Your task to perform on an android device: snooze an email in the gmail app Image 0: 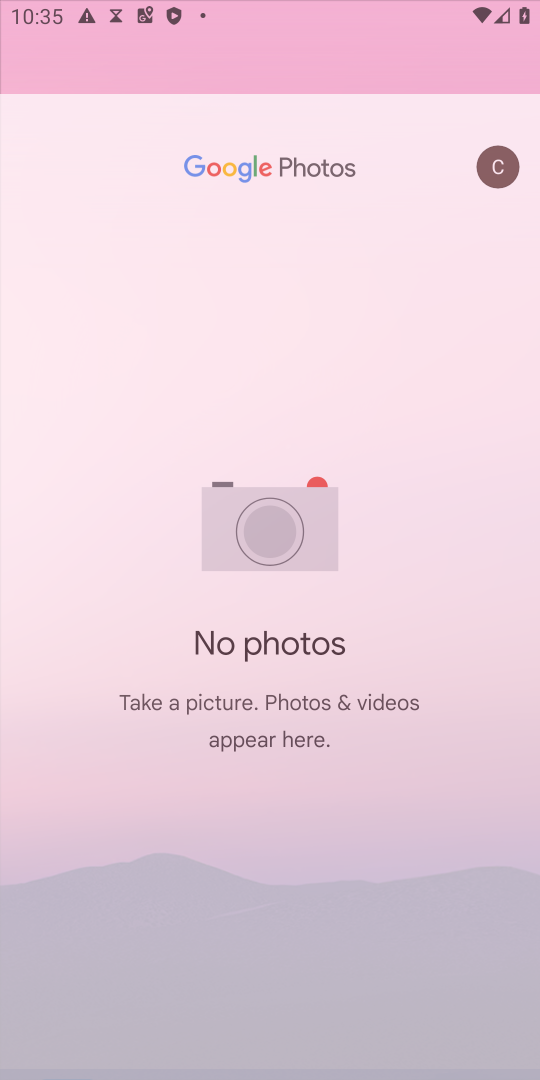
Step 0: press home button
Your task to perform on an android device: snooze an email in the gmail app Image 1: 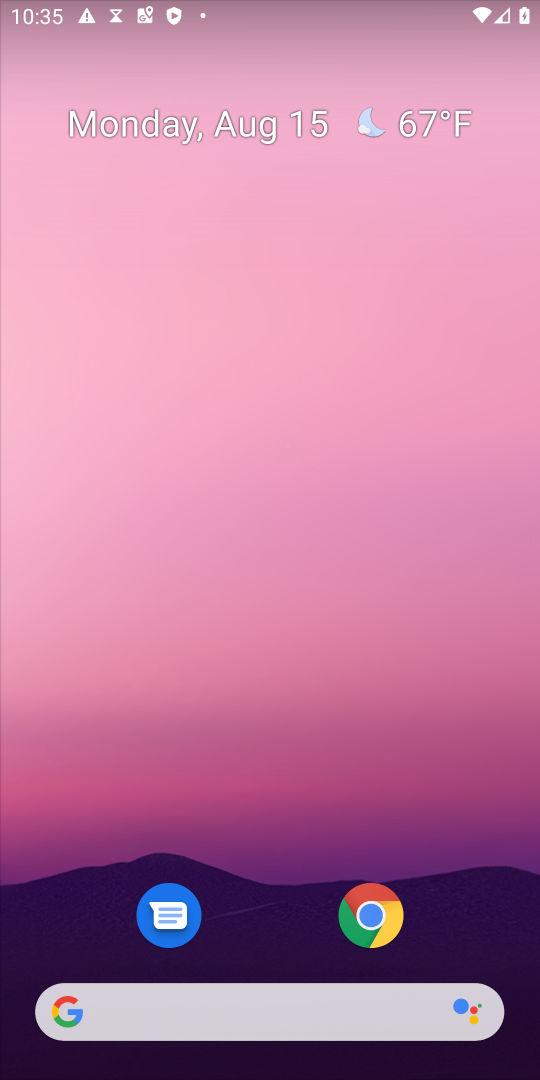
Step 1: drag from (243, 809) to (286, 155)
Your task to perform on an android device: snooze an email in the gmail app Image 2: 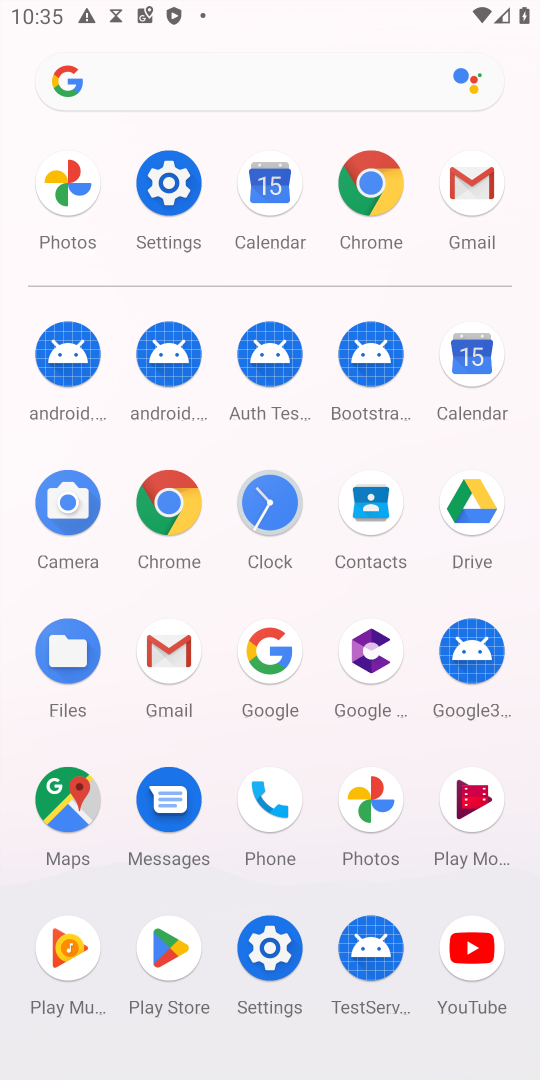
Step 2: click (471, 194)
Your task to perform on an android device: snooze an email in the gmail app Image 3: 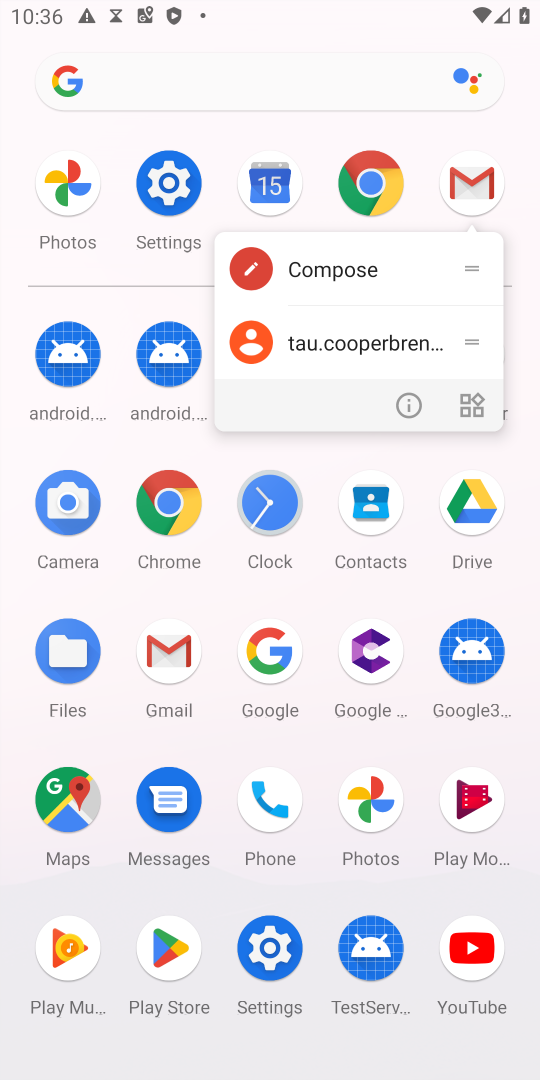
Step 3: click (477, 190)
Your task to perform on an android device: snooze an email in the gmail app Image 4: 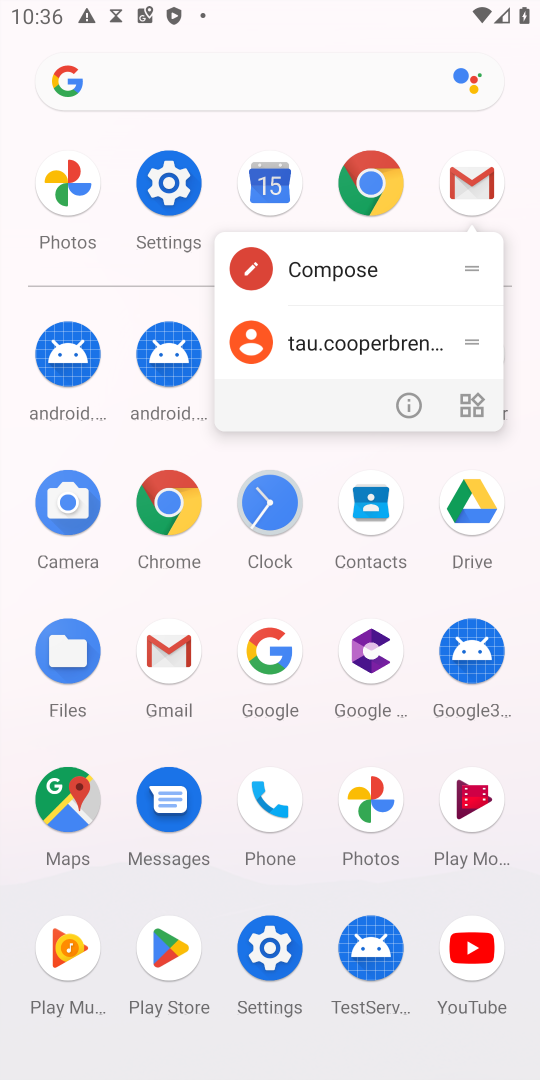
Step 4: click (468, 192)
Your task to perform on an android device: snooze an email in the gmail app Image 5: 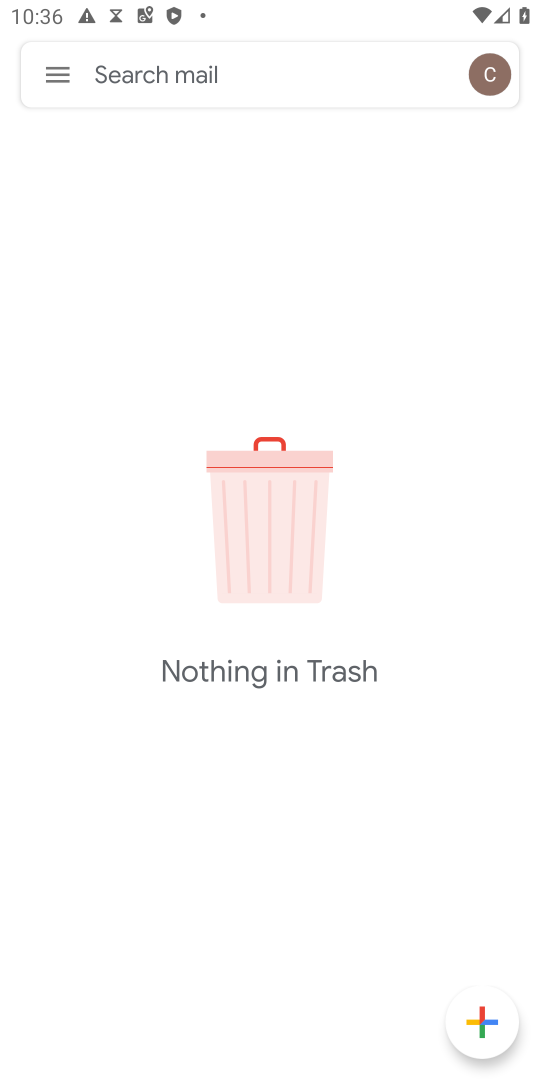
Step 5: click (58, 72)
Your task to perform on an android device: snooze an email in the gmail app Image 6: 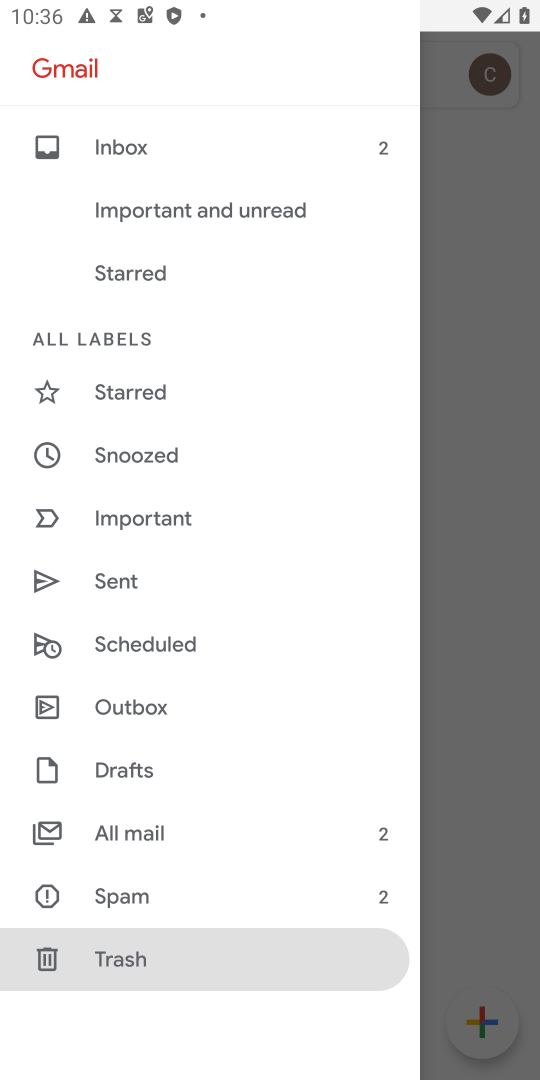
Step 6: click (141, 835)
Your task to perform on an android device: snooze an email in the gmail app Image 7: 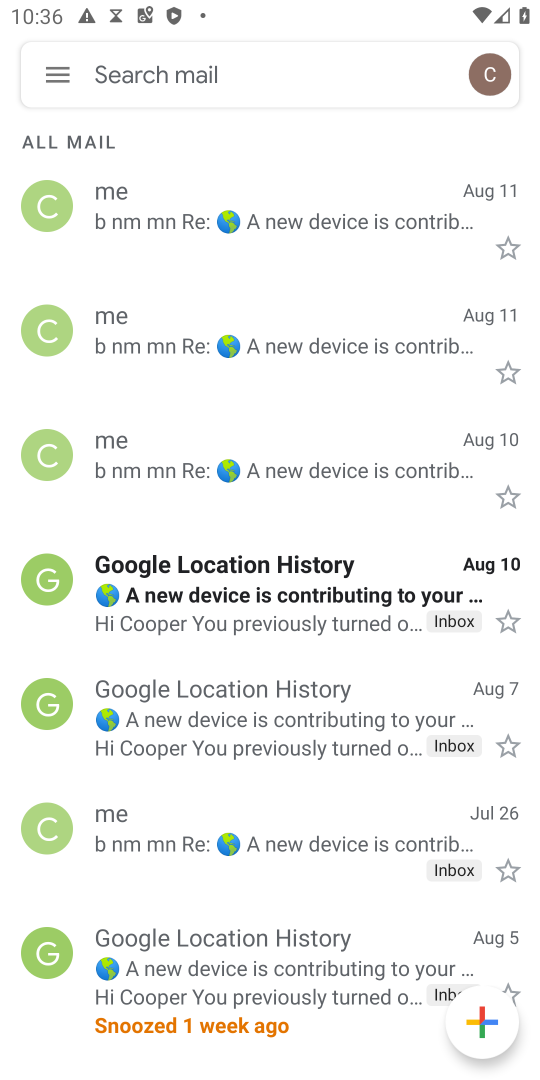
Step 7: drag from (159, 810) to (202, 951)
Your task to perform on an android device: snooze an email in the gmail app Image 8: 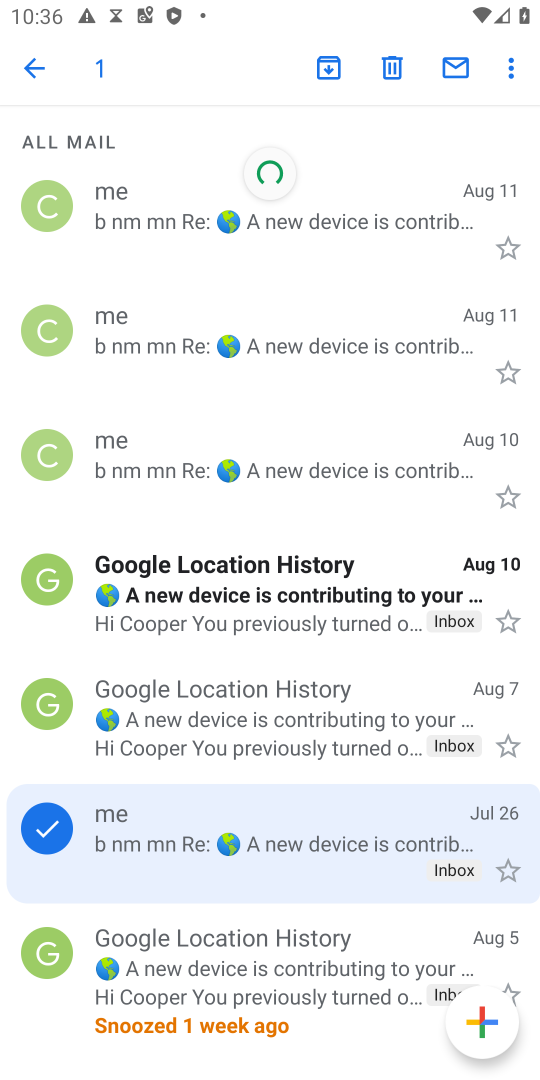
Step 8: click (199, 222)
Your task to perform on an android device: snooze an email in the gmail app Image 9: 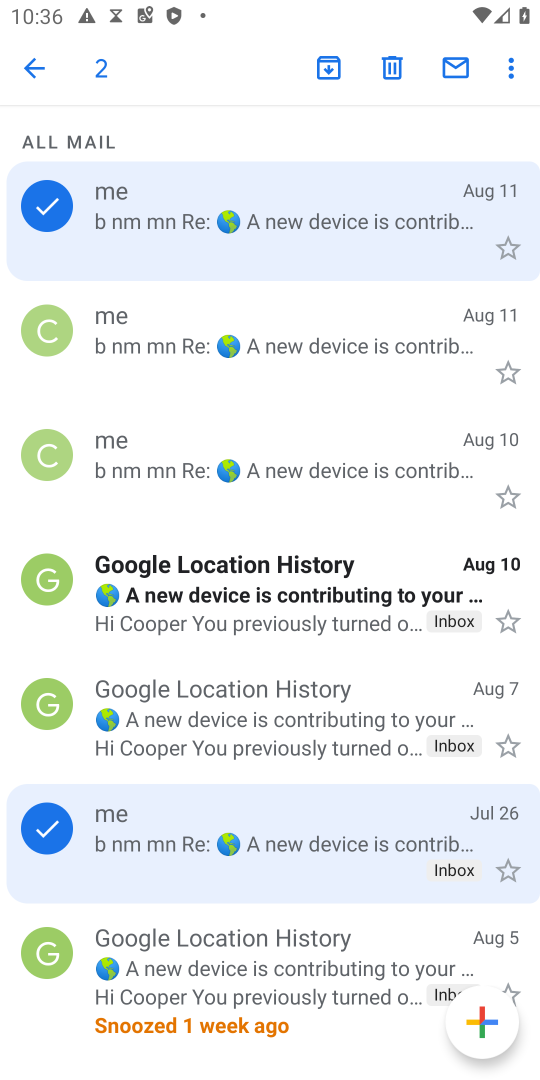
Step 9: click (144, 828)
Your task to perform on an android device: snooze an email in the gmail app Image 10: 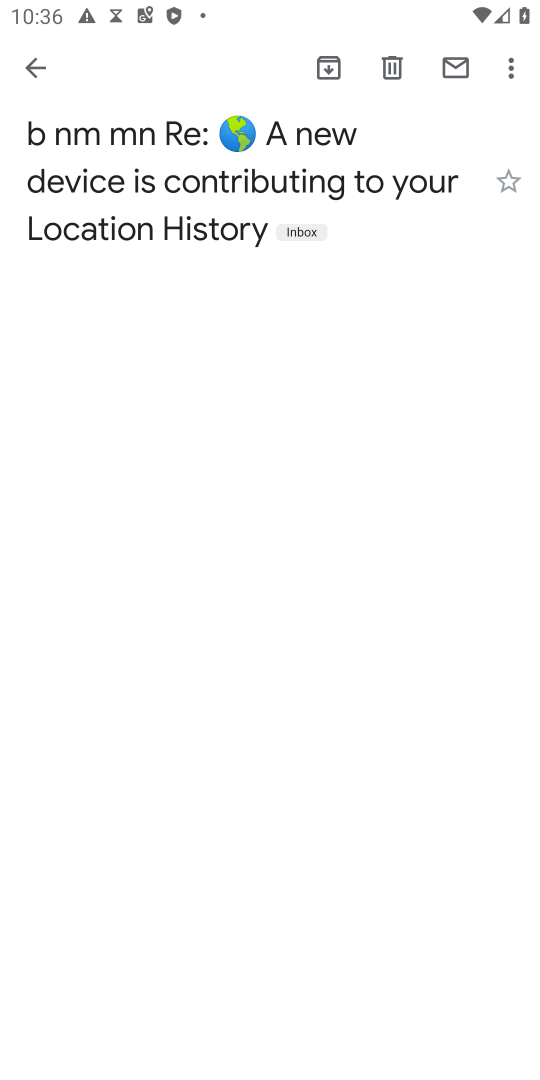
Step 10: click (506, 58)
Your task to perform on an android device: snooze an email in the gmail app Image 11: 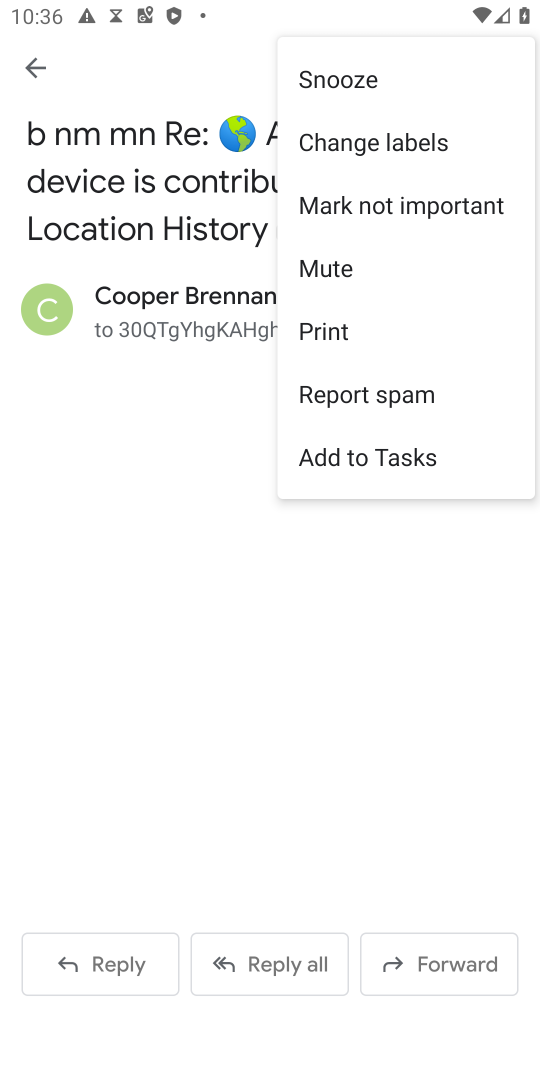
Step 11: click (377, 79)
Your task to perform on an android device: snooze an email in the gmail app Image 12: 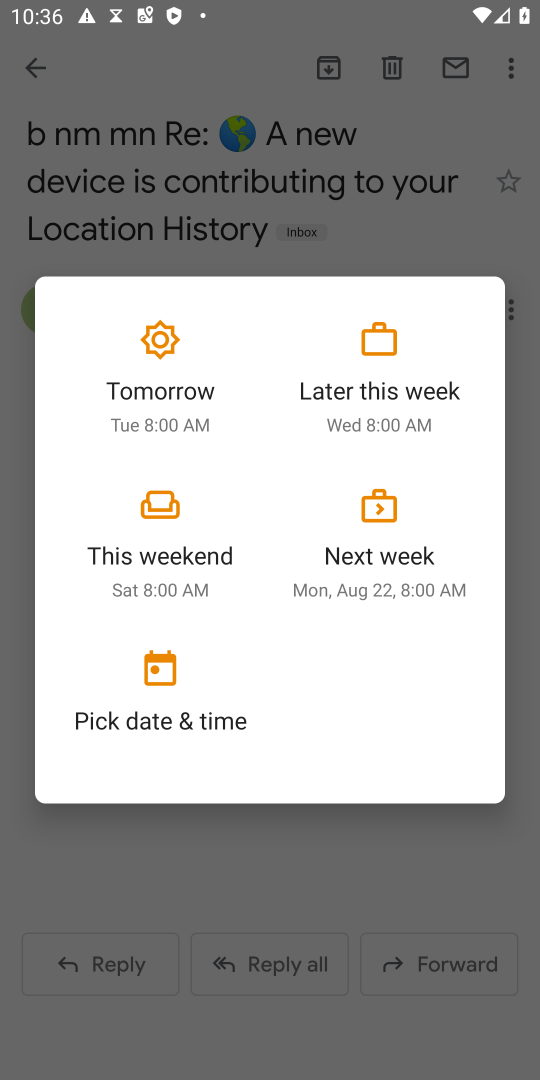
Step 12: click (351, 533)
Your task to perform on an android device: snooze an email in the gmail app Image 13: 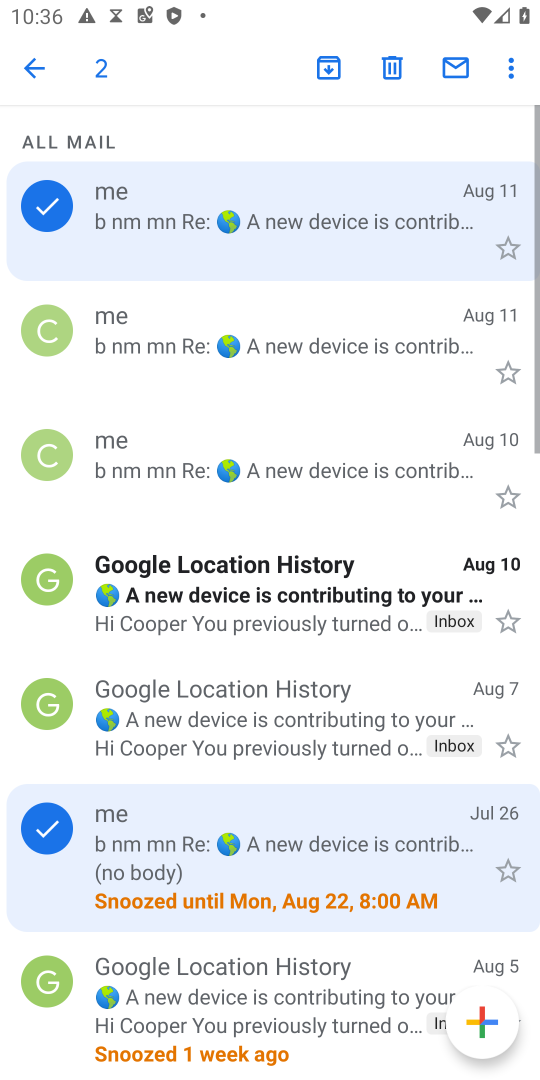
Step 13: task complete